Your task to perform on an android device: Go to Google Image 0: 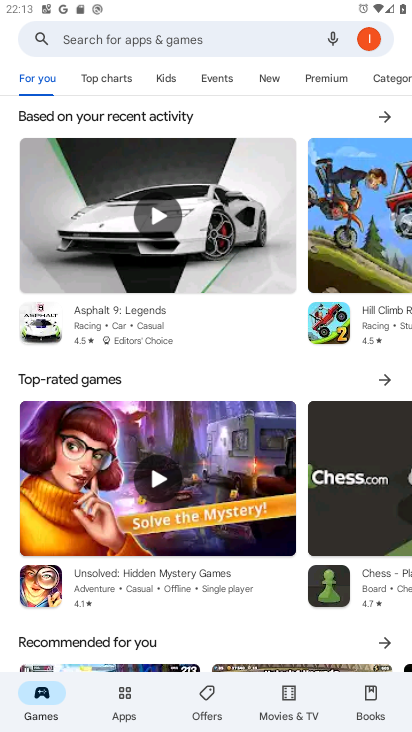
Step 0: press home button
Your task to perform on an android device: Go to Google Image 1: 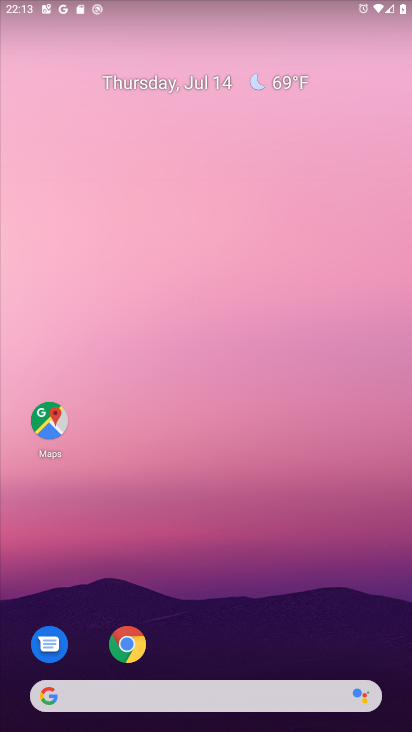
Step 1: click (114, 696)
Your task to perform on an android device: Go to Google Image 2: 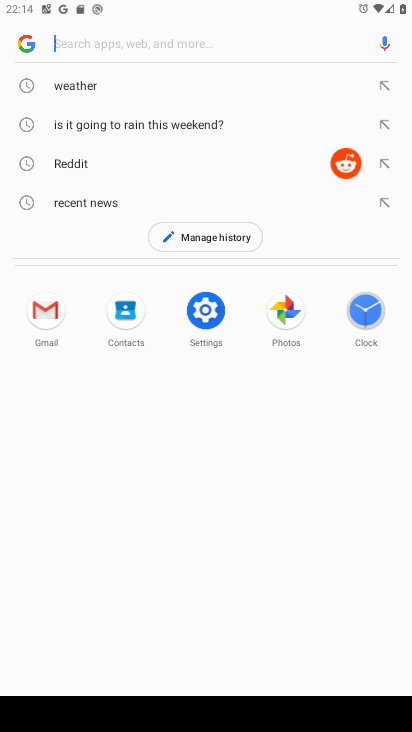
Step 2: task complete